Your task to perform on an android device: Go to Maps Image 0: 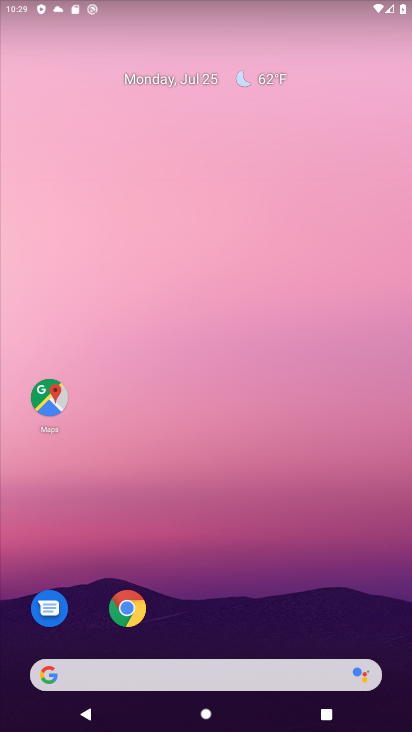
Step 0: drag from (314, 506) to (310, 58)
Your task to perform on an android device: Go to Maps Image 1: 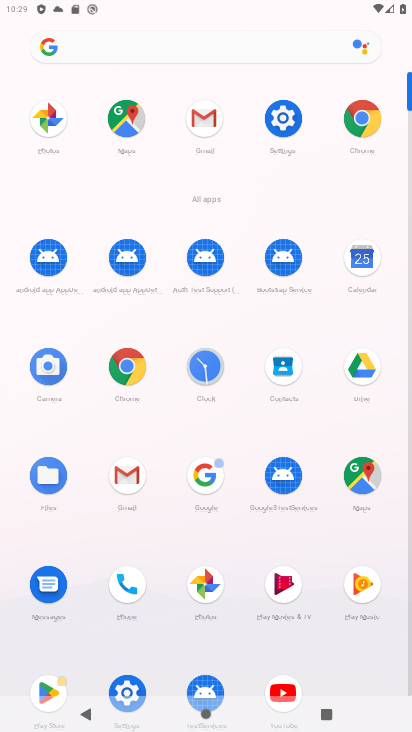
Step 1: click (362, 486)
Your task to perform on an android device: Go to Maps Image 2: 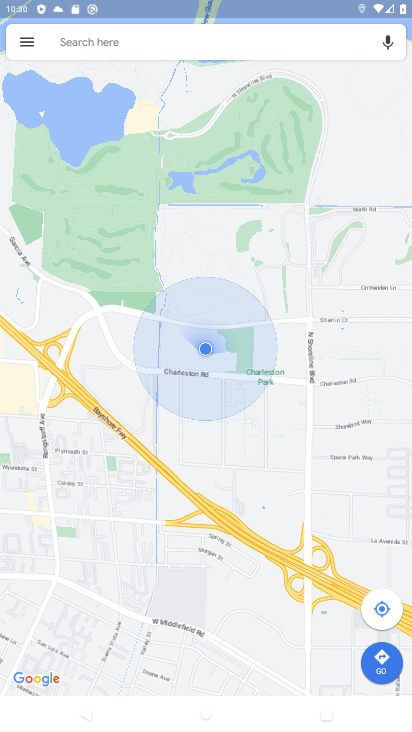
Step 2: task complete